Your task to perform on an android device: move an email to a new category in the gmail app Image 0: 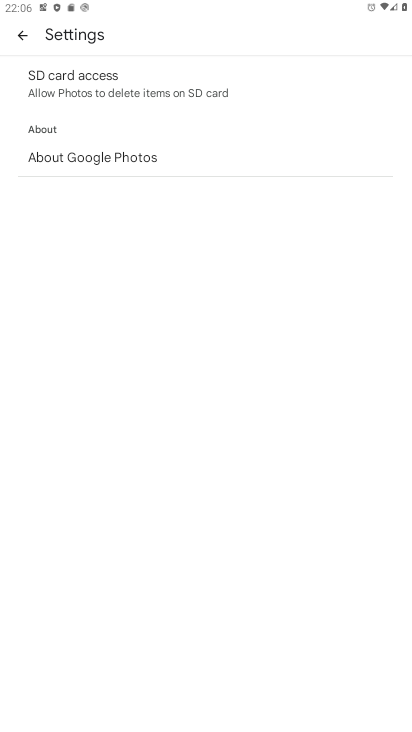
Step 0: press home button
Your task to perform on an android device: move an email to a new category in the gmail app Image 1: 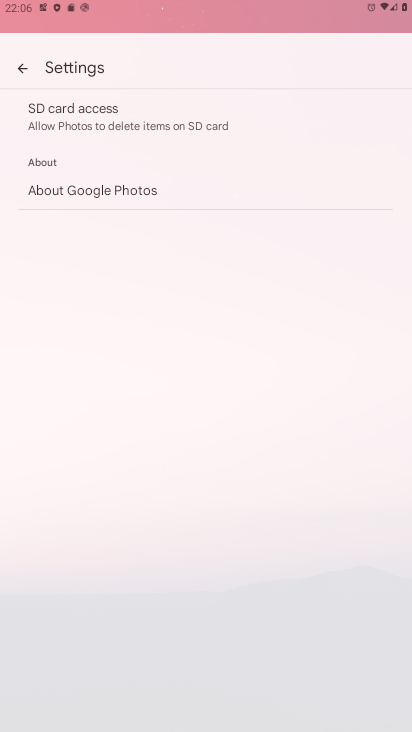
Step 1: drag from (251, 543) to (327, 69)
Your task to perform on an android device: move an email to a new category in the gmail app Image 2: 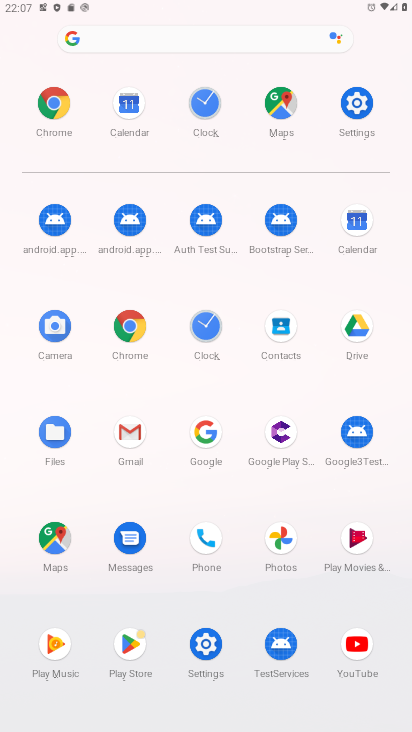
Step 2: click (127, 435)
Your task to perform on an android device: move an email to a new category in the gmail app Image 3: 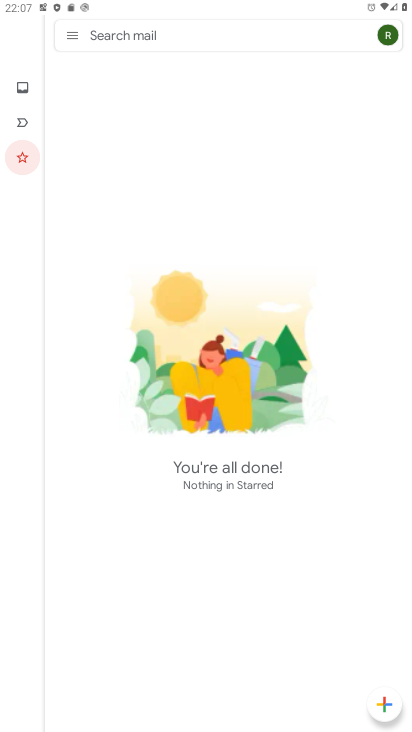
Step 3: drag from (268, 570) to (282, 398)
Your task to perform on an android device: move an email to a new category in the gmail app Image 4: 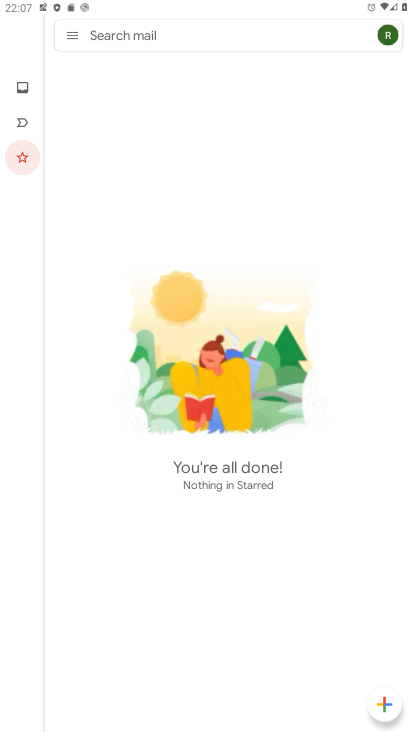
Step 4: click (48, 17)
Your task to perform on an android device: move an email to a new category in the gmail app Image 5: 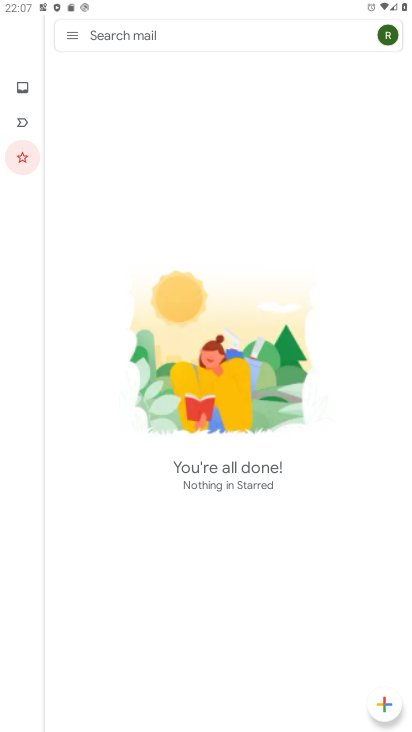
Step 5: click (73, 31)
Your task to perform on an android device: move an email to a new category in the gmail app Image 6: 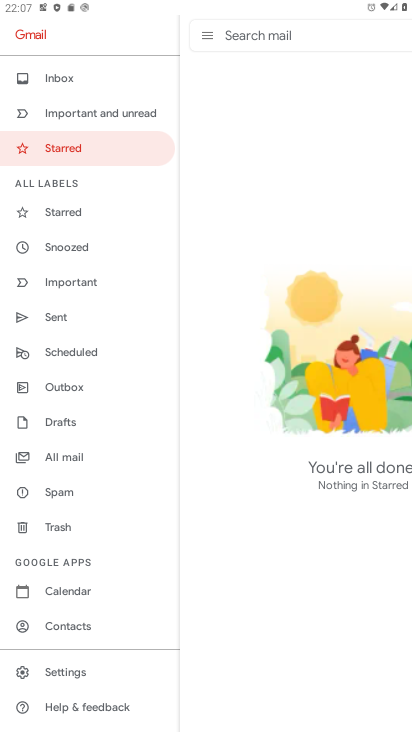
Step 6: drag from (132, 565) to (112, 132)
Your task to perform on an android device: move an email to a new category in the gmail app Image 7: 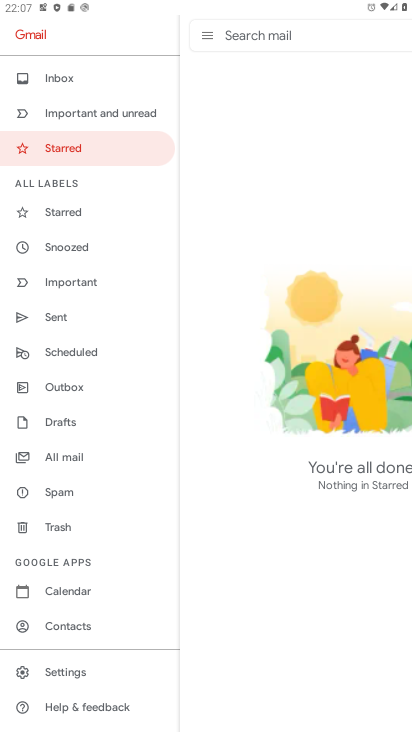
Step 7: drag from (81, 502) to (120, 365)
Your task to perform on an android device: move an email to a new category in the gmail app Image 8: 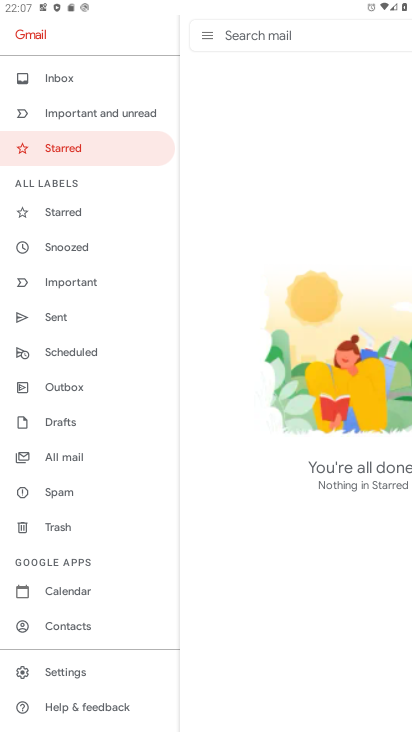
Step 8: drag from (73, 581) to (115, 108)
Your task to perform on an android device: move an email to a new category in the gmail app Image 9: 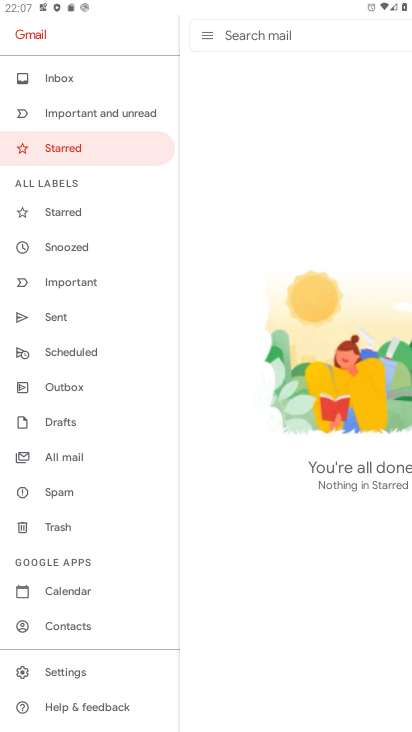
Step 9: click (337, 96)
Your task to perform on an android device: move an email to a new category in the gmail app Image 10: 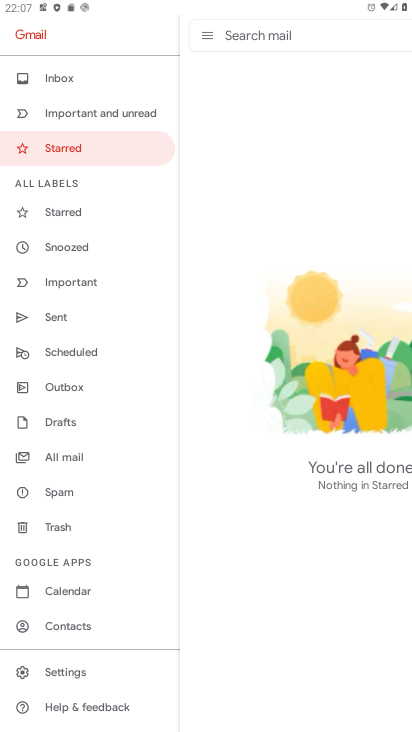
Step 10: click (244, 377)
Your task to perform on an android device: move an email to a new category in the gmail app Image 11: 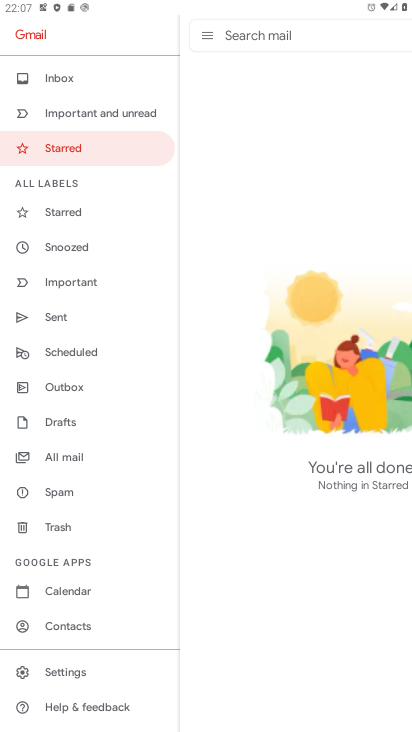
Step 11: task complete